Your task to perform on an android device: Open notification settings Image 0: 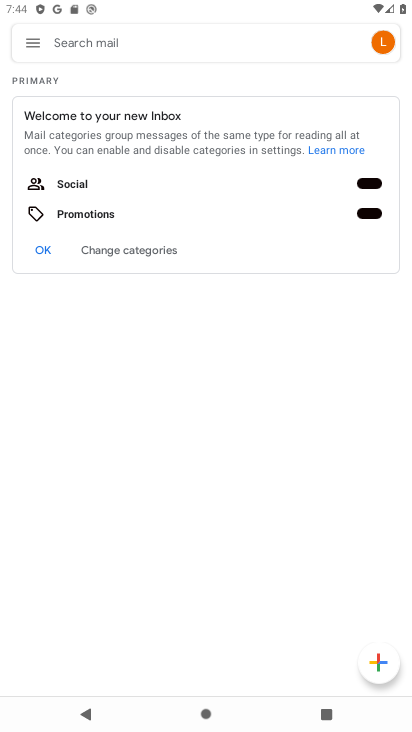
Step 0: press home button
Your task to perform on an android device: Open notification settings Image 1: 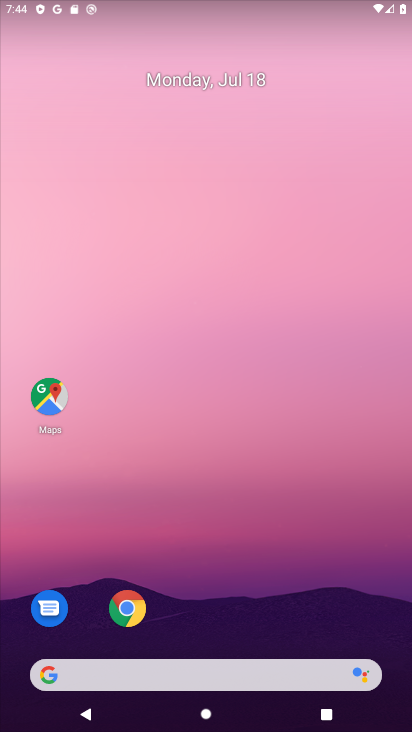
Step 1: drag from (248, 626) to (276, 103)
Your task to perform on an android device: Open notification settings Image 2: 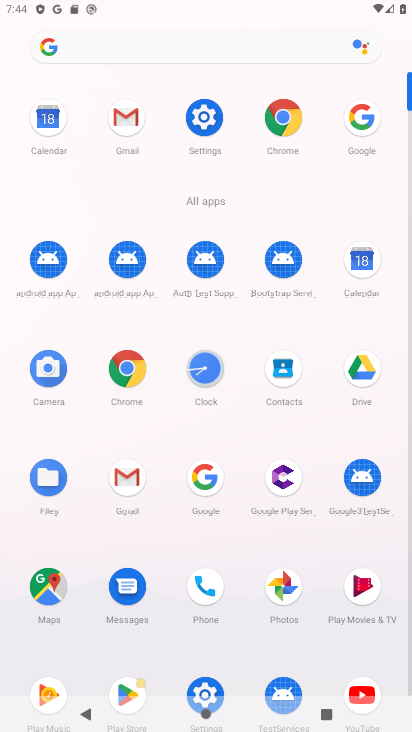
Step 2: click (195, 110)
Your task to perform on an android device: Open notification settings Image 3: 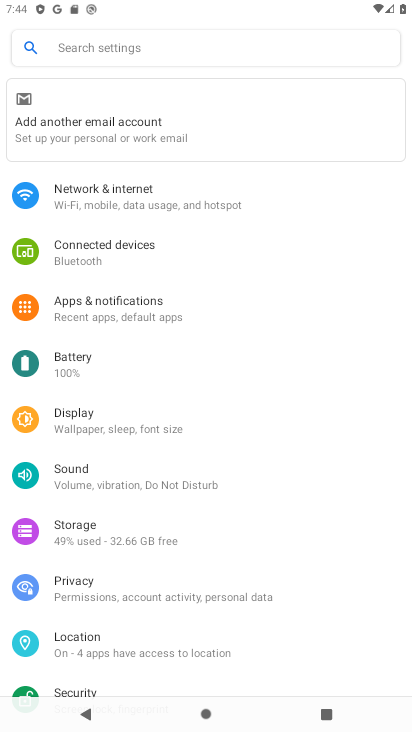
Step 3: click (116, 303)
Your task to perform on an android device: Open notification settings Image 4: 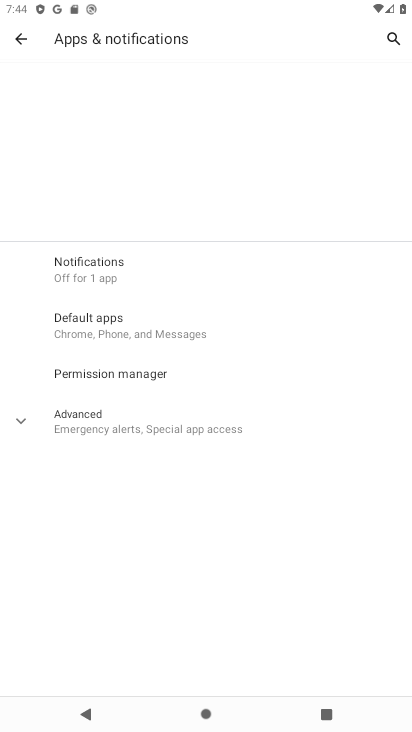
Step 4: click (88, 268)
Your task to perform on an android device: Open notification settings Image 5: 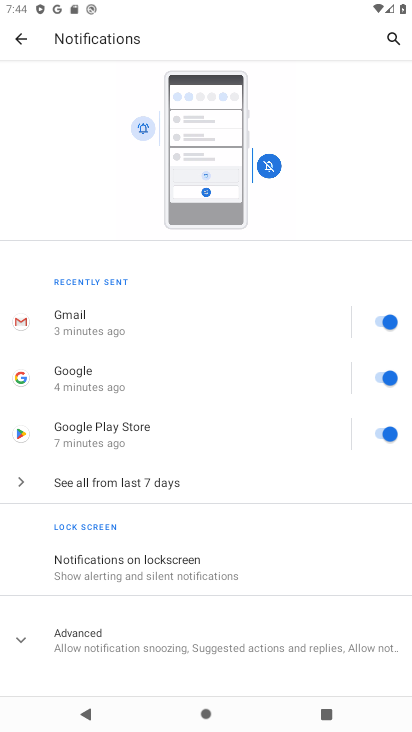
Step 5: task complete